Your task to perform on an android device: Open Chrome and go to settings Image 0: 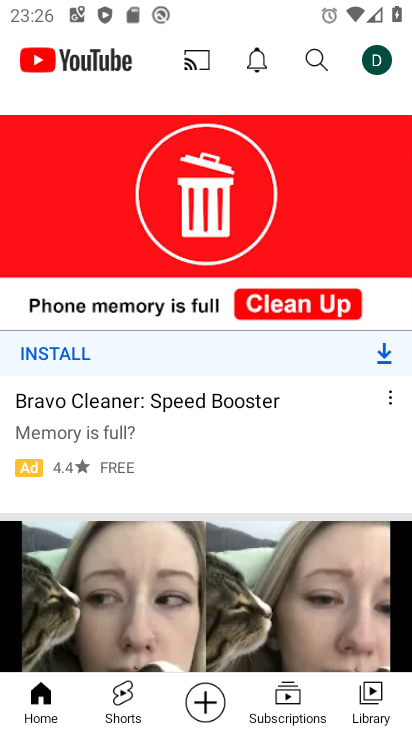
Step 0: press home button
Your task to perform on an android device: Open Chrome and go to settings Image 1: 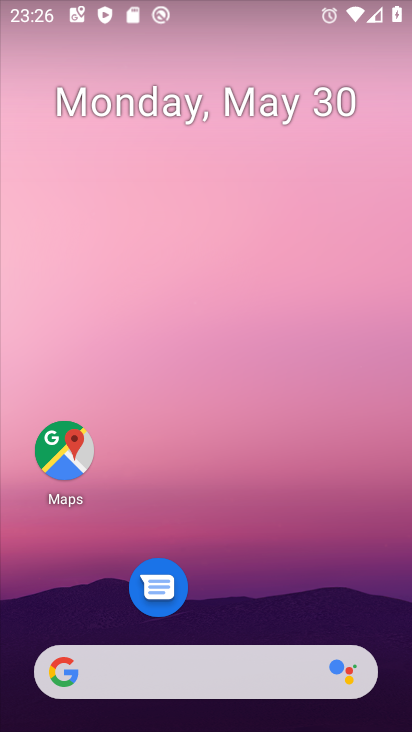
Step 1: drag from (238, 631) to (159, 6)
Your task to perform on an android device: Open Chrome and go to settings Image 2: 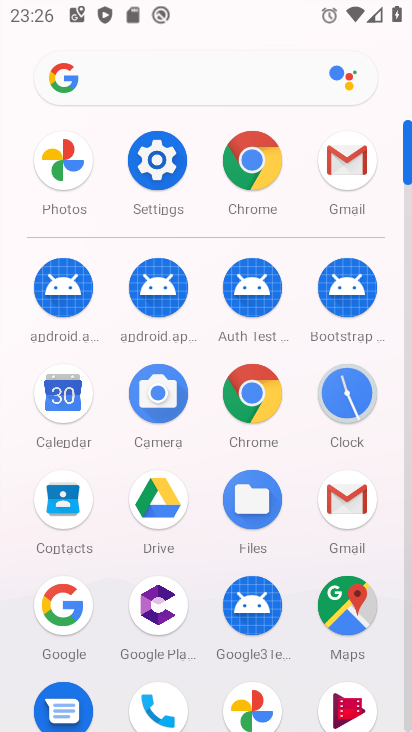
Step 2: click (246, 163)
Your task to perform on an android device: Open Chrome and go to settings Image 3: 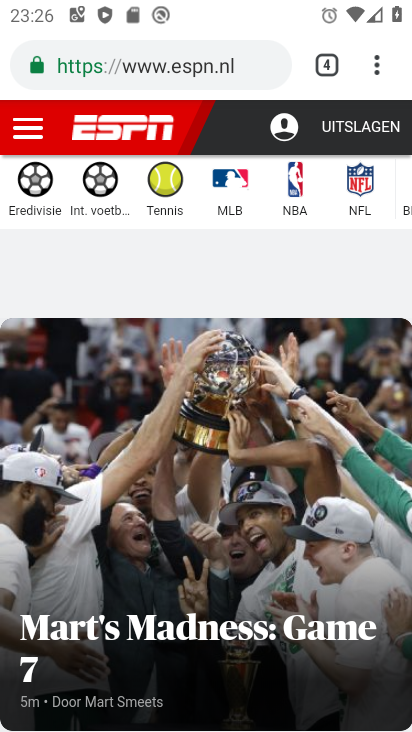
Step 3: click (372, 65)
Your task to perform on an android device: Open Chrome and go to settings Image 4: 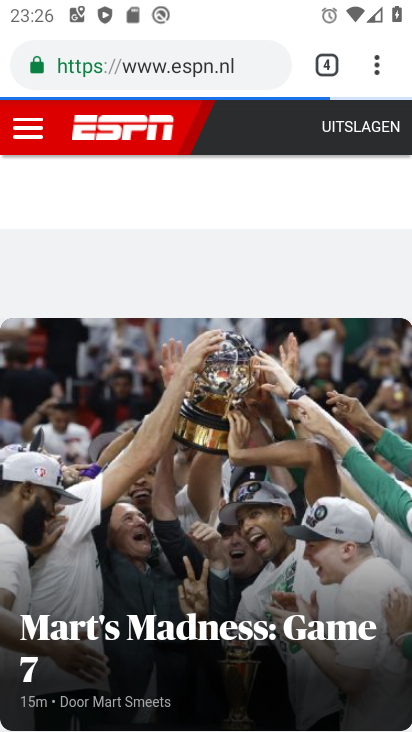
Step 4: click (374, 72)
Your task to perform on an android device: Open Chrome and go to settings Image 5: 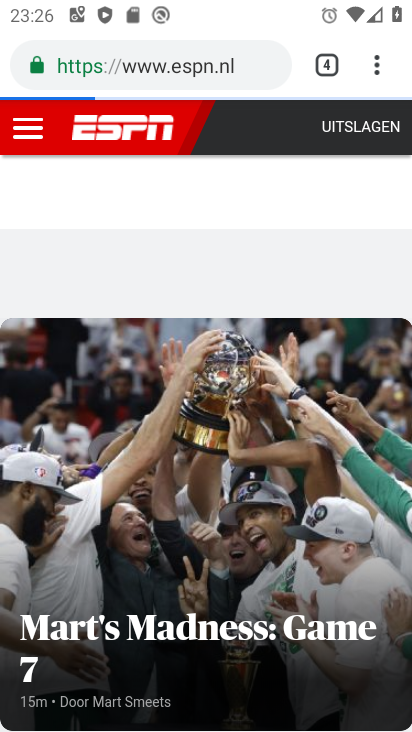
Step 5: task complete